Your task to perform on an android device: turn off sleep mode Image 0: 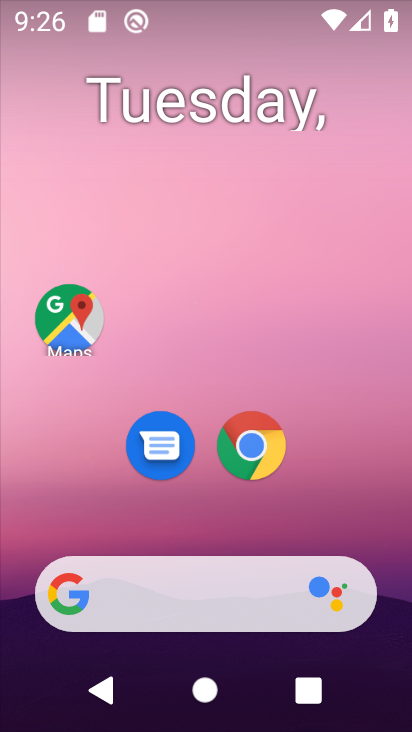
Step 0: drag from (194, 418) to (211, 40)
Your task to perform on an android device: turn off sleep mode Image 1: 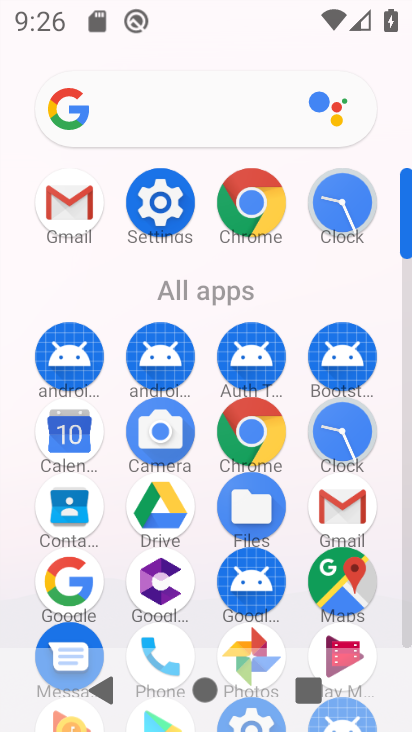
Step 1: click (158, 195)
Your task to perform on an android device: turn off sleep mode Image 2: 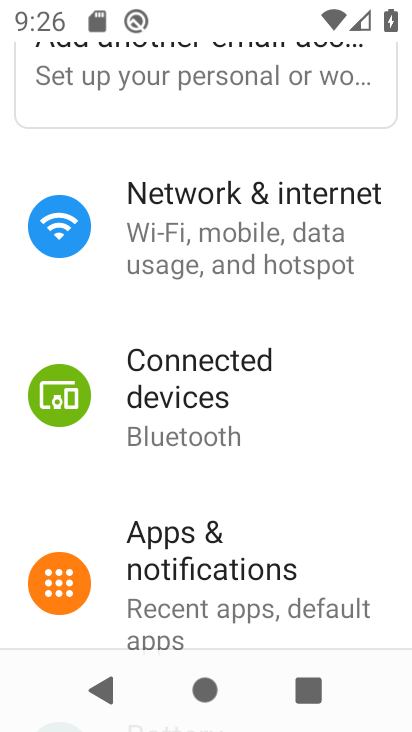
Step 2: drag from (206, 505) to (232, 40)
Your task to perform on an android device: turn off sleep mode Image 3: 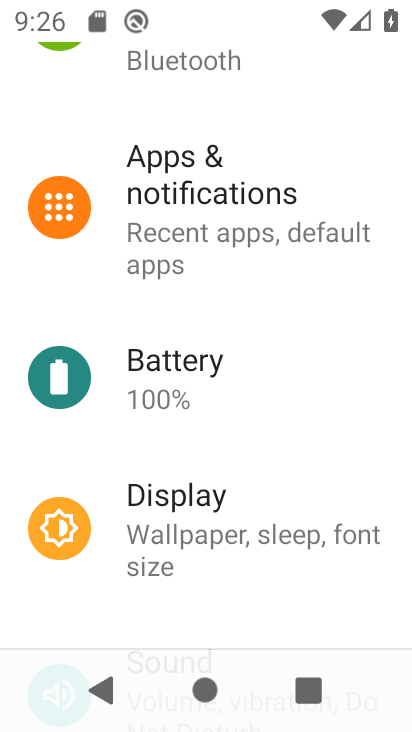
Step 3: click (227, 494)
Your task to perform on an android device: turn off sleep mode Image 4: 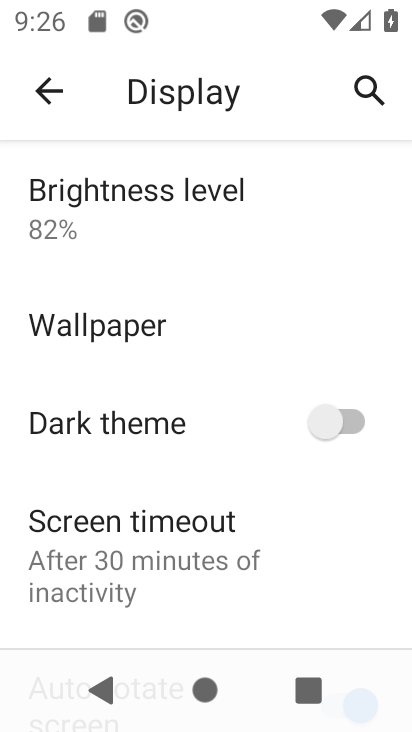
Step 4: drag from (233, 587) to (233, 249)
Your task to perform on an android device: turn off sleep mode Image 5: 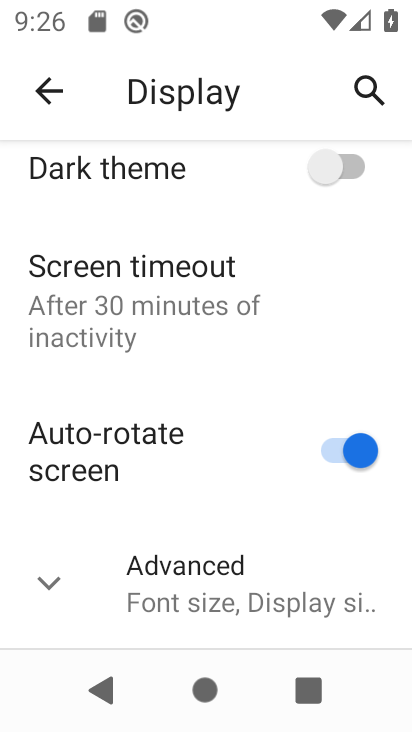
Step 5: click (178, 590)
Your task to perform on an android device: turn off sleep mode Image 6: 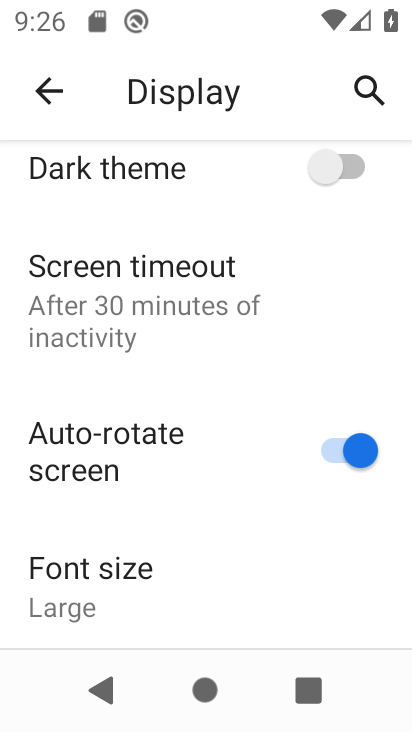
Step 6: click (168, 313)
Your task to perform on an android device: turn off sleep mode Image 7: 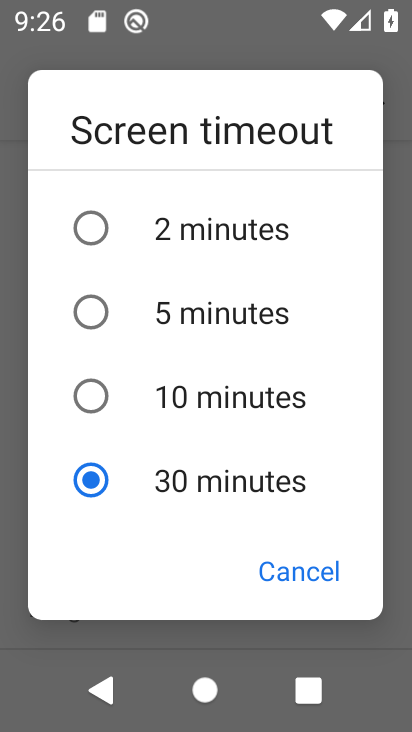
Step 7: click (84, 481)
Your task to perform on an android device: turn off sleep mode Image 8: 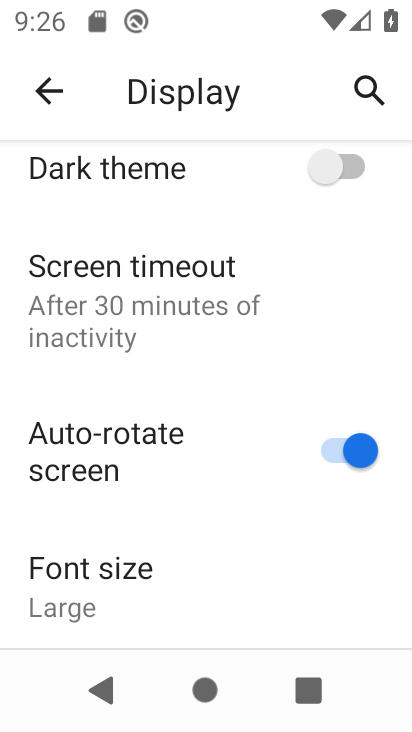
Step 8: task complete